Your task to perform on an android device: open the mobile data screen to see how much data has been used Image 0: 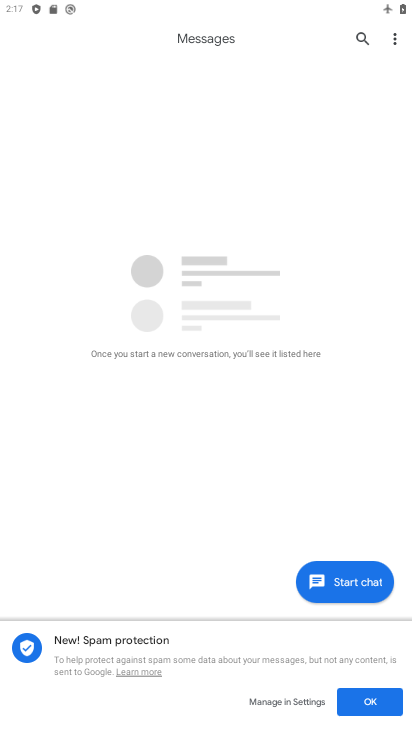
Step 0: press home button
Your task to perform on an android device: open the mobile data screen to see how much data has been used Image 1: 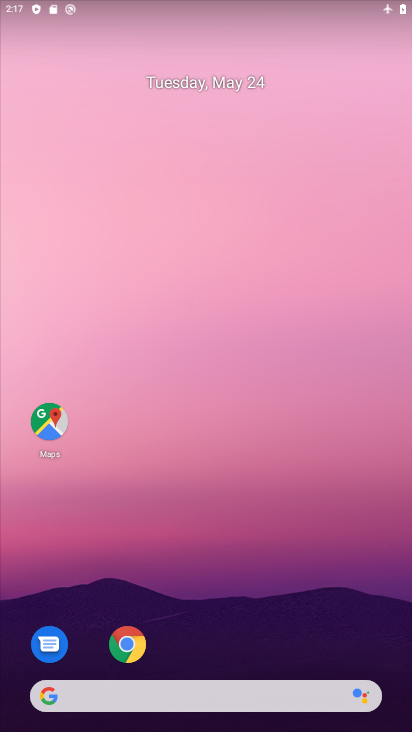
Step 1: drag from (220, 634) to (292, 54)
Your task to perform on an android device: open the mobile data screen to see how much data has been used Image 2: 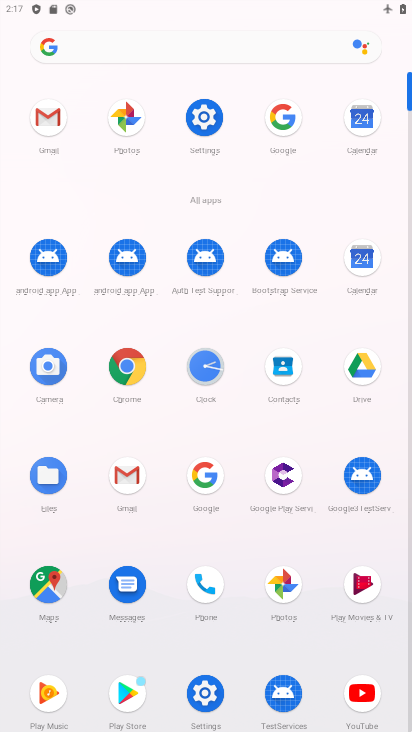
Step 2: click (204, 122)
Your task to perform on an android device: open the mobile data screen to see how much data has been used Image 3: 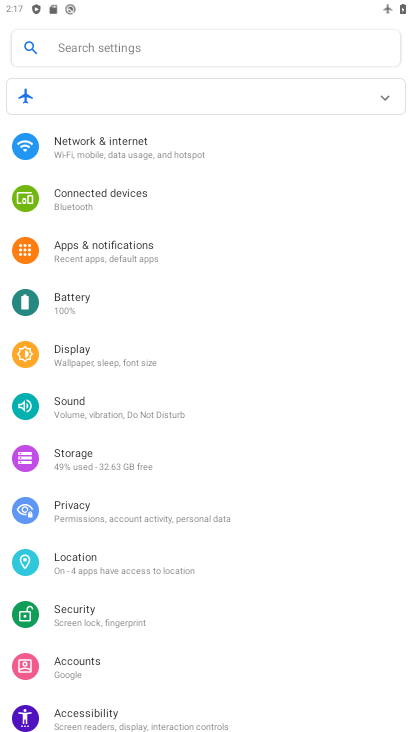
Step 3: click (99, 149)
Your task to perform on an android device: open the mobile data screen to see how much data has been used Image 4: 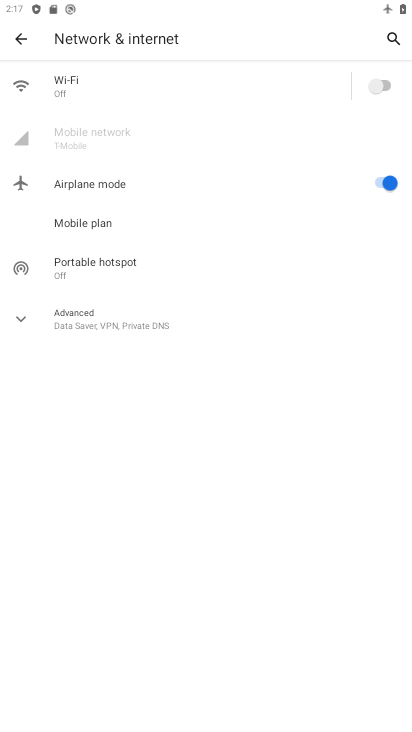
Step 4: task complete